Your task to perform on an android device: Open settings on Google Maps Image 0: 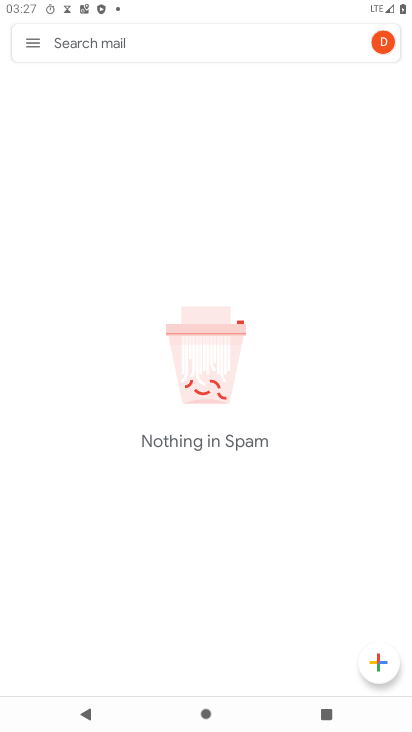
Step 0: press home button
Your task to perform on an android device: Open settings on Google Maps Image 1: 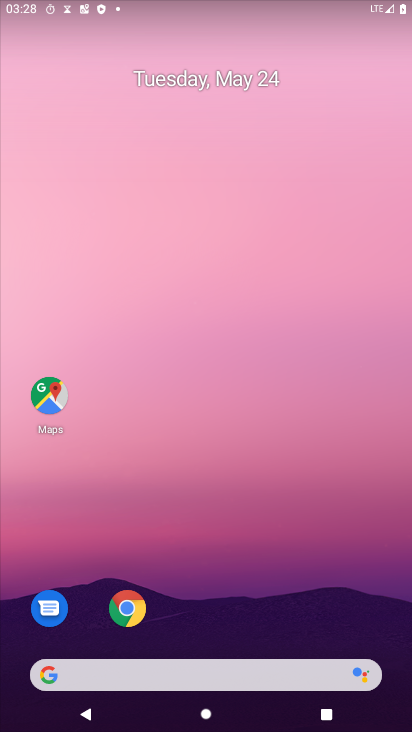
Step 1: click (42, 407)
Your task to perform on an android device: Open settings on Google Maps Image 2: 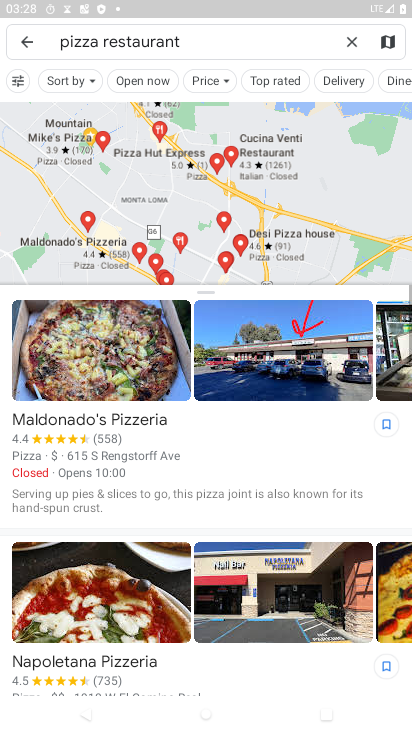
Step 2: click (39, 44)
Your task to perform on an android device: Open settings on Google Maps Image 3: 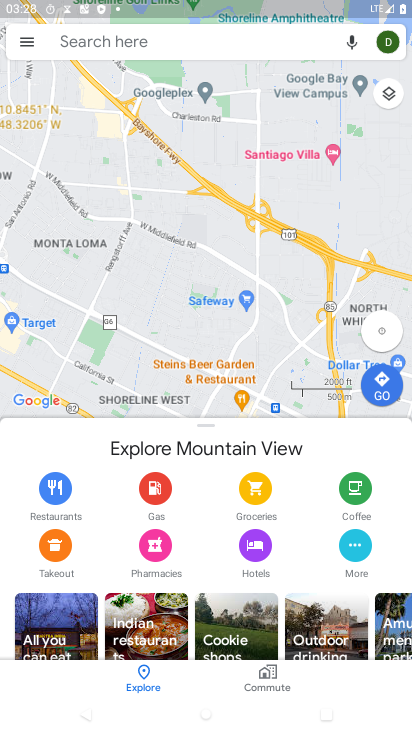
Step 3: click (38, 44)
Your task to perform on an android device: Open settings on Google Maps Image 4: 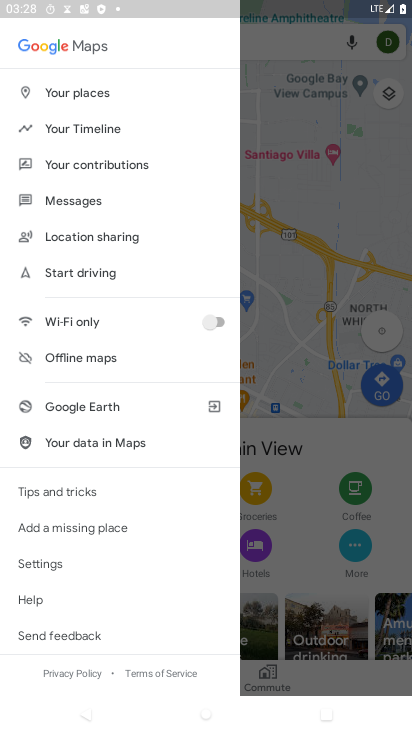
Step 4: click (54, 561)
Your task to perform on an android device: Open settings on Google Maps Image 5: 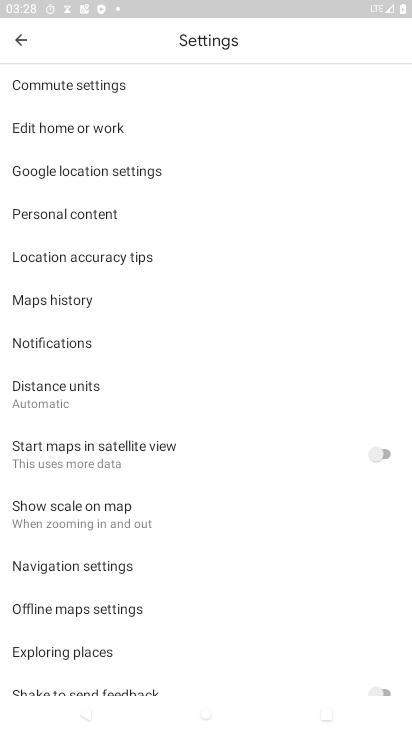
Step 5: task complete